Your task to perform on an android device: Open the calendar app, open the side menu, and click the "Day" option Image 0: 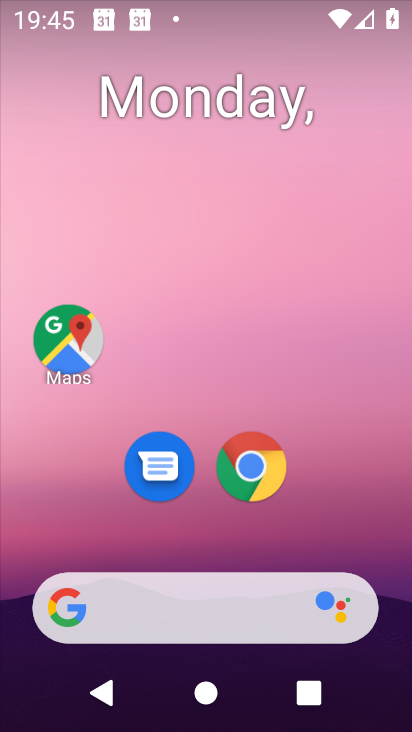
Step 0: drag from (331, 541) to (222, 152)
Your task to perform on an android device: Open the calendar app, open the side menu, and click the "Day" option Image 1: 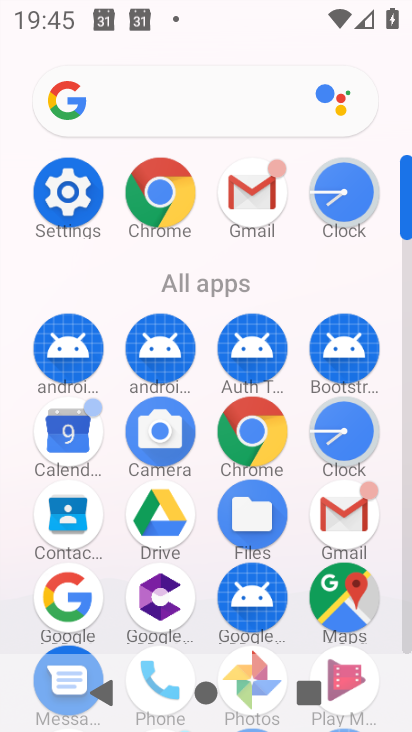
Step 1: click (64, 415)
Your task to perform on an android device: Open the calendar app, open the side menu, and click the "Day" option Image 2: 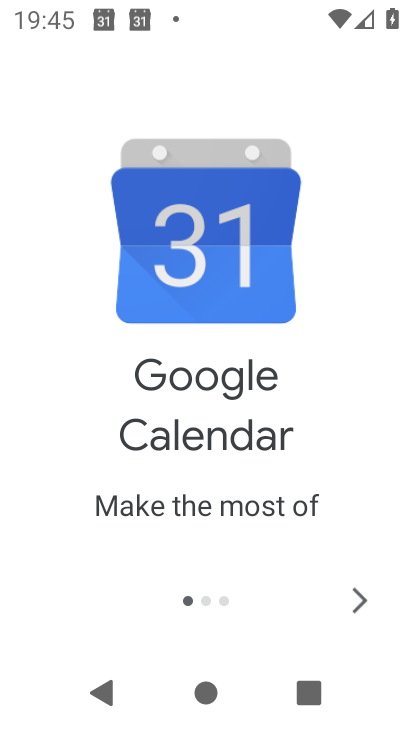
Step 2: click (368, 594)
Your task to perform on an android device: Open the calendar app, open the side menu, and click the "Day" option Image 3: 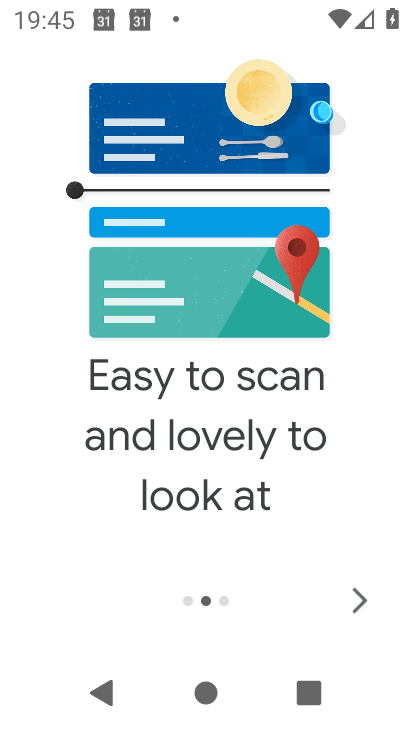
Step 3: click (368, 594)
Your task to perform on an android device: Open the calendar app, open the side menu, and click the "Day" option Image 4: 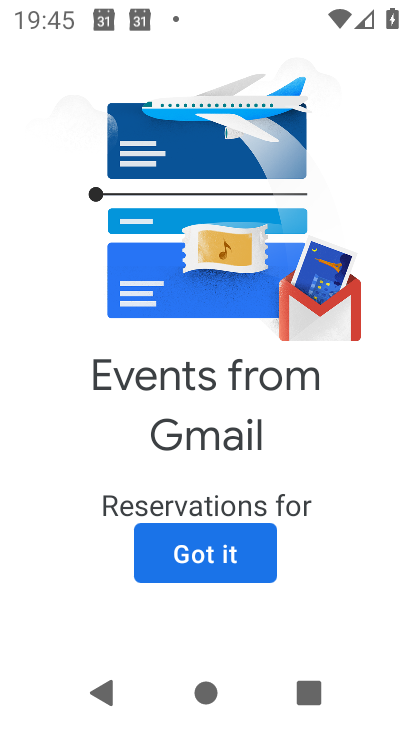
Step 4: click (205, 561)
Your task to perform on an android device: Open the calendar app, open the side menu, and click the "Day" option Image 5: 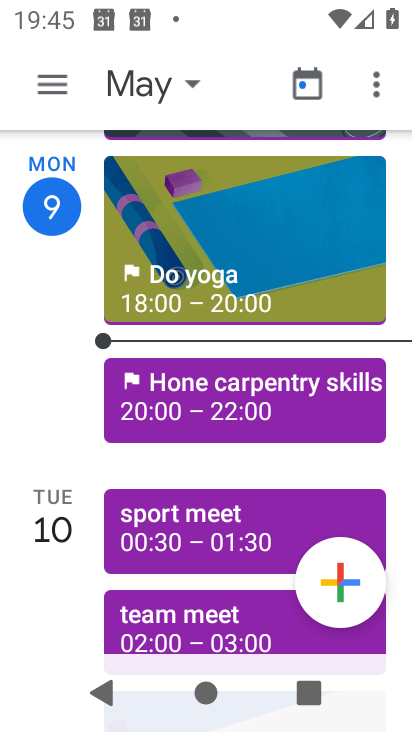
Step 5: click (62, 86)
Your task to perform on an android device: Open the calendar app, open the side menu, and click the "Day" option Image 6: 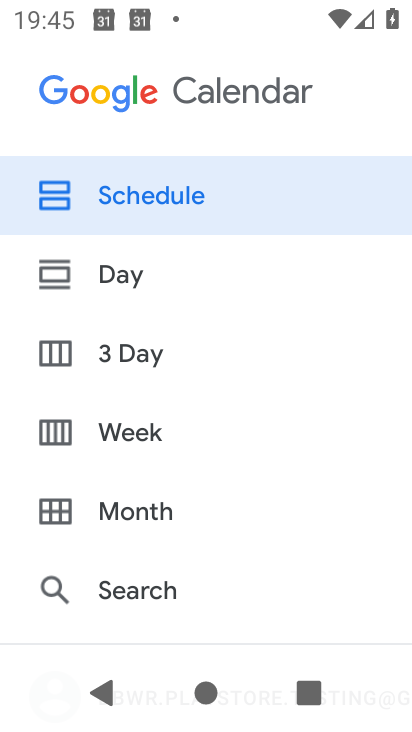
Step 6: click (98, 274)
Your task to perform on an android device: Open the calendar app, open the side menu, and click the "Day" option Image 7: 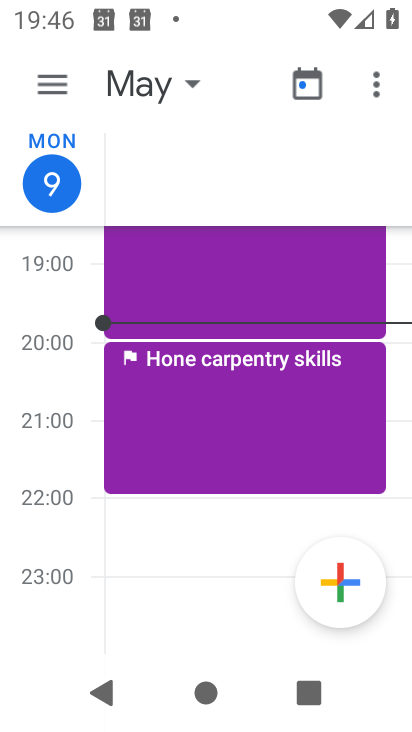
Step 7: task complete